Your task to perform on an android device: Open Google Image 0: 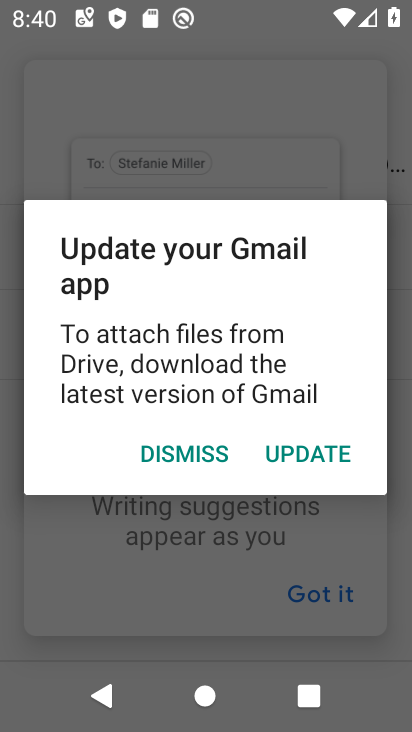
Step 0: press back button
Your task to perform on an android device: Open Google Image 1: 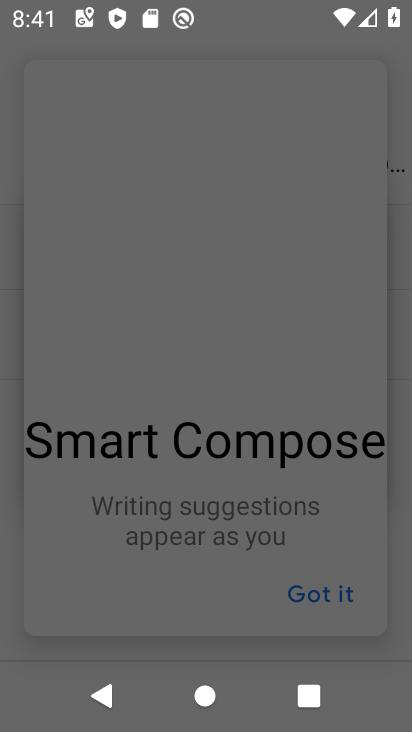
Step 1: press home button
Your task to perform on an android device: Open Google Image 2: 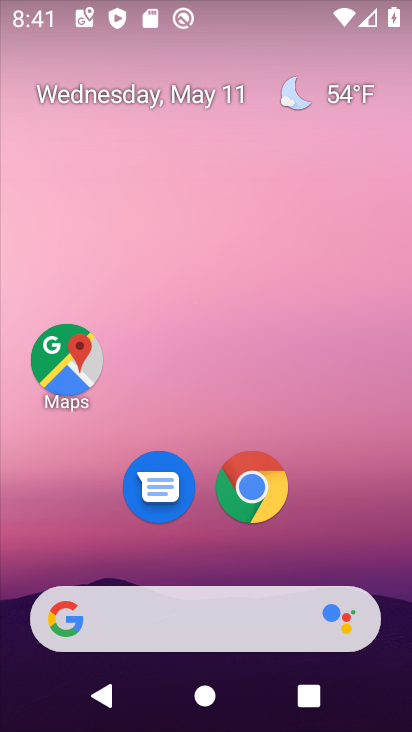
Step 2: drag from (193, 592) to (265, 147)
Your task to perform on an android device: Open Google Image 3: 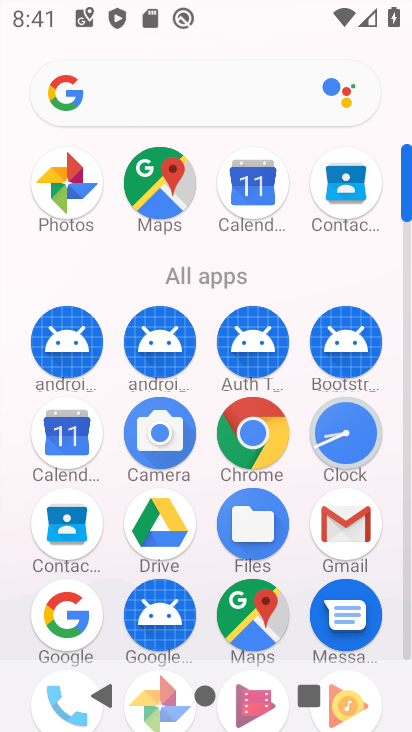
Step 3: click (75, 622)
Your task to perform on an android device: Open Google Image 4: 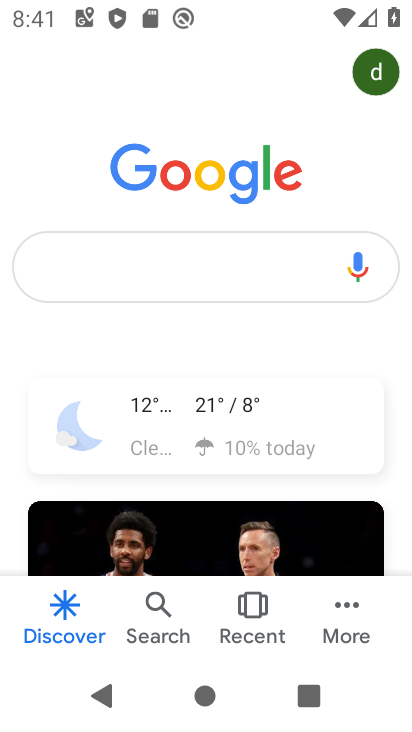
Step 4: task complete